Your task to perform on an android device: toggle improve location accuracy Image 0: 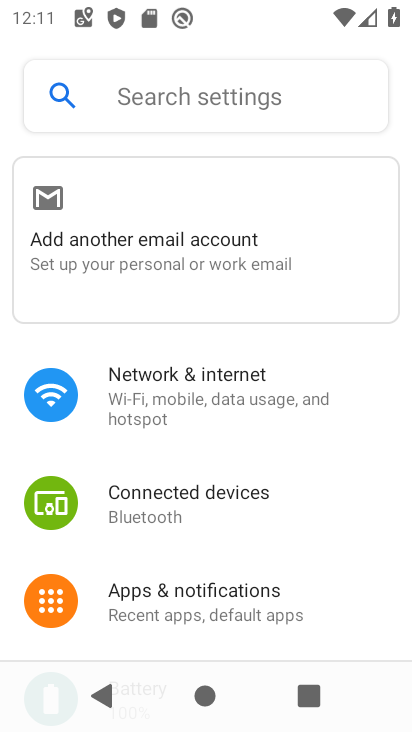
Step 0: drag from (168, 588) to (243, 88)
Your task to perform on an android device: toggle improve location accuracy Image 1: 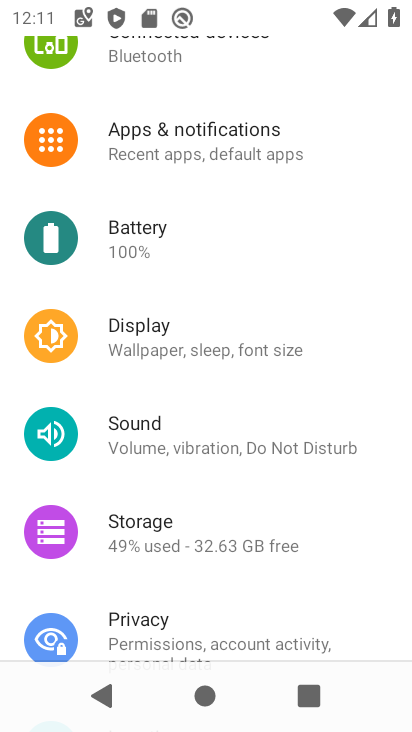
Step 1: drag from (173, 595) to (247, 133)
Your task to perform on an android device: toggle improve location accuracy Image 2: 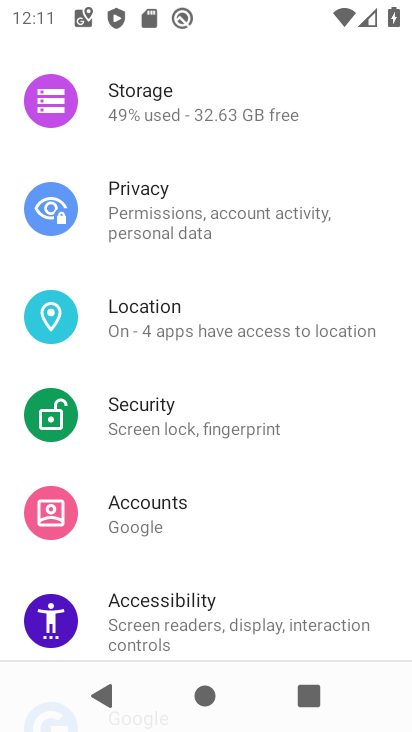
Step 2: click (187, 315)
Your task to perform on an android device: toggle improve location accuracy Image 3: 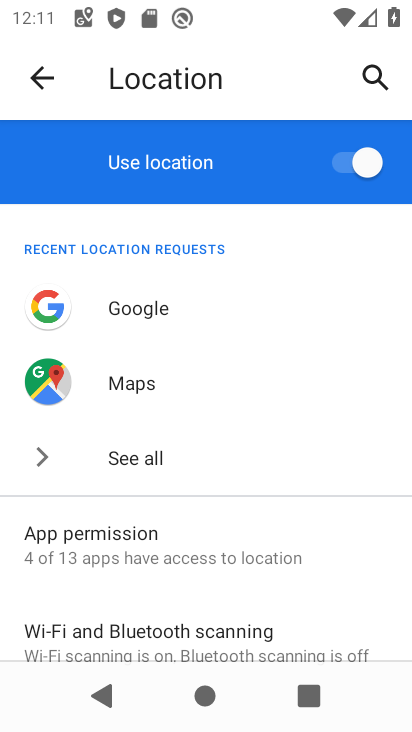
Step 3: drag from (160, 612) to (246, 146)
Your task to perform on an android device: toggle improve location accuracy Image 4: 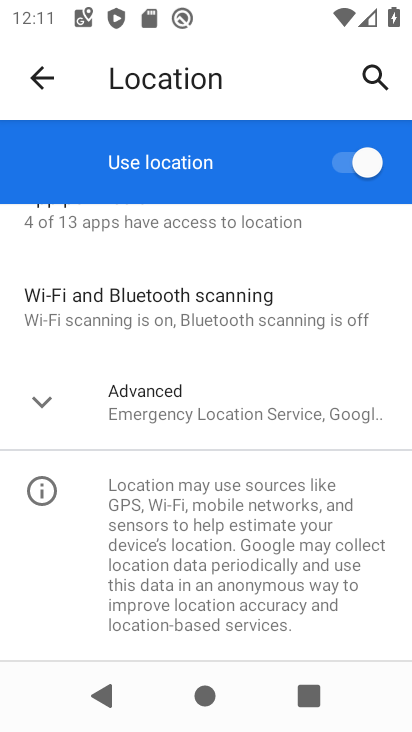
Step 4: click (212, 406)
Your task to perform on an android device: toggle improve location accuracy Image 5: 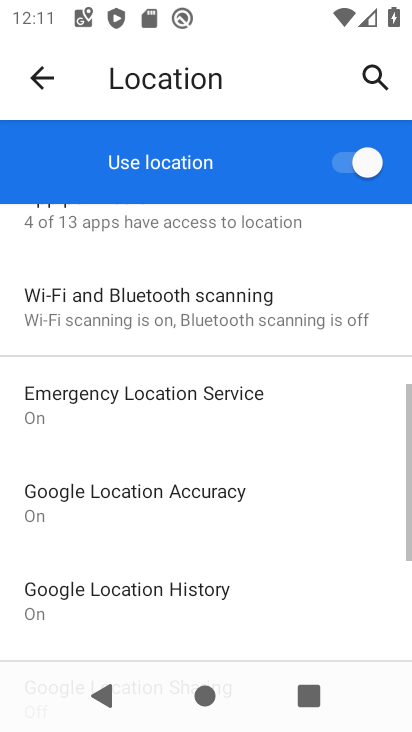
Step 5: click (177, 480)
Your task to perform on an android device: toggle improve location accuracy Image 6: 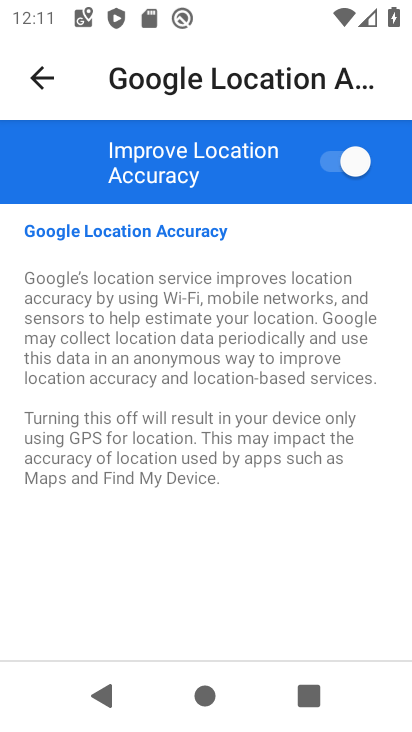
Step 6: click (349, 160)
Your task to perform on an android device: toggle improve location accuracy Image 7: 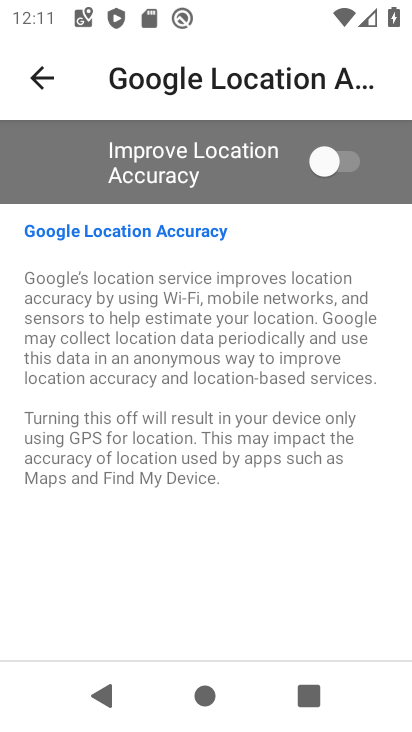
Step 7: task complete